Your task to perform on an android device: Open eBay Image 0: 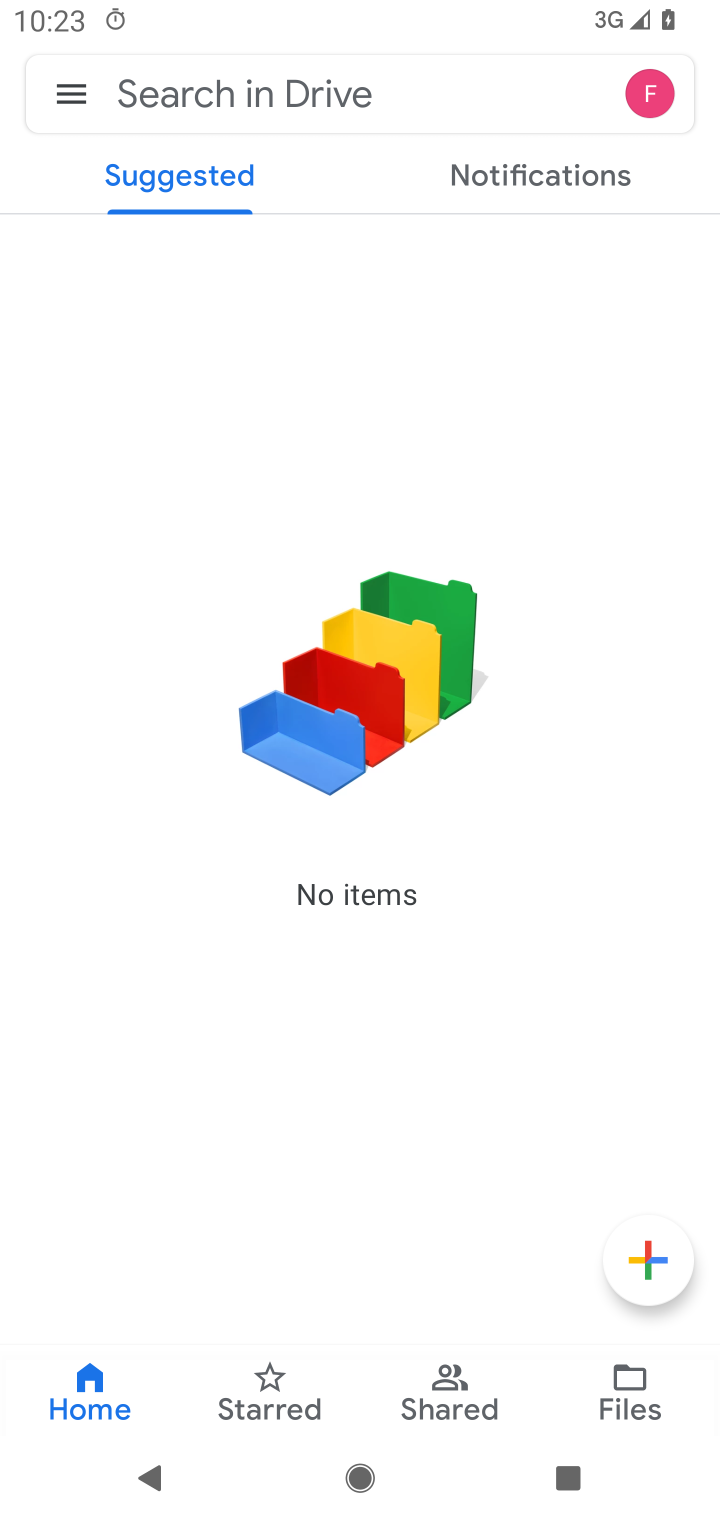
Step 0: press home button
Your task to perform on an android device: Open eBay Image 1: 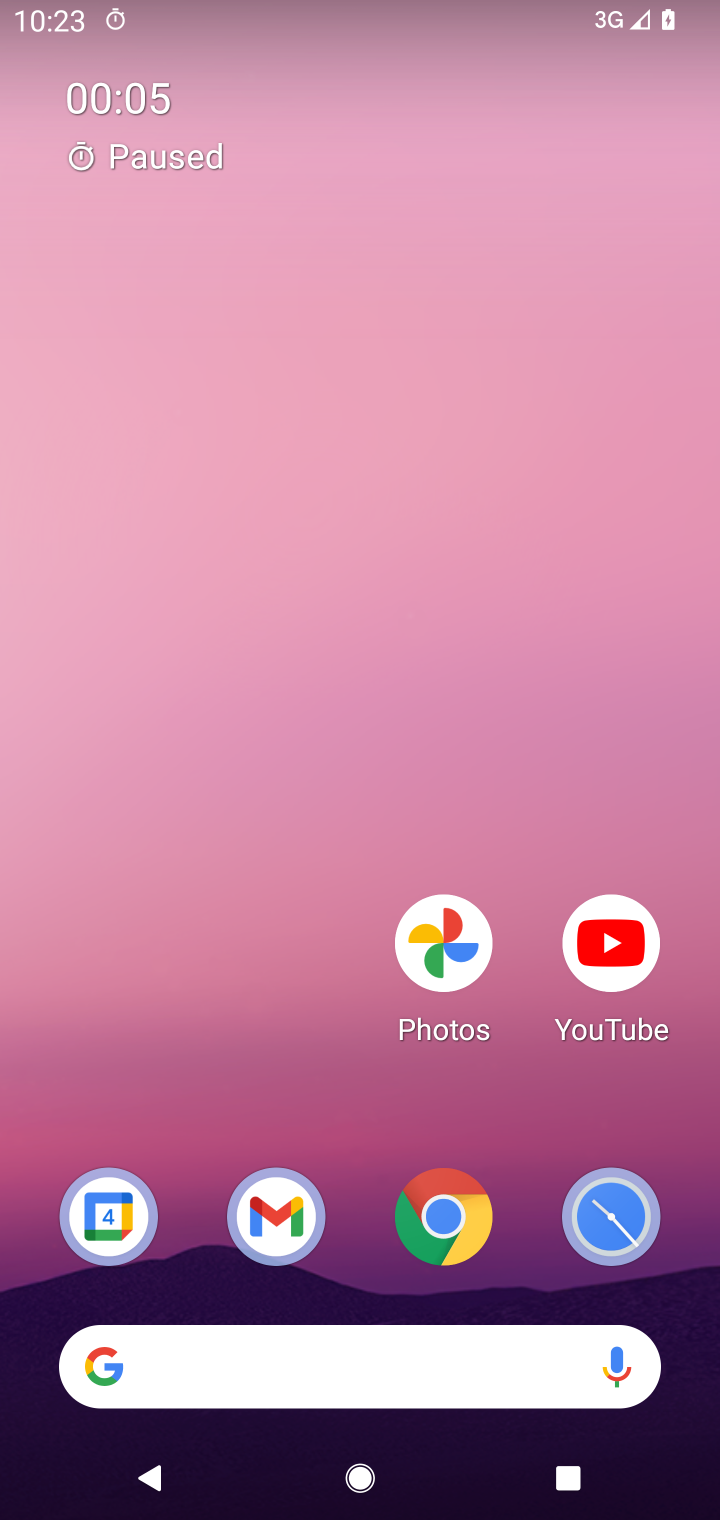
Step 1: click (439, 1221)
Your task to perform on an android device: Open eBay Image 2: 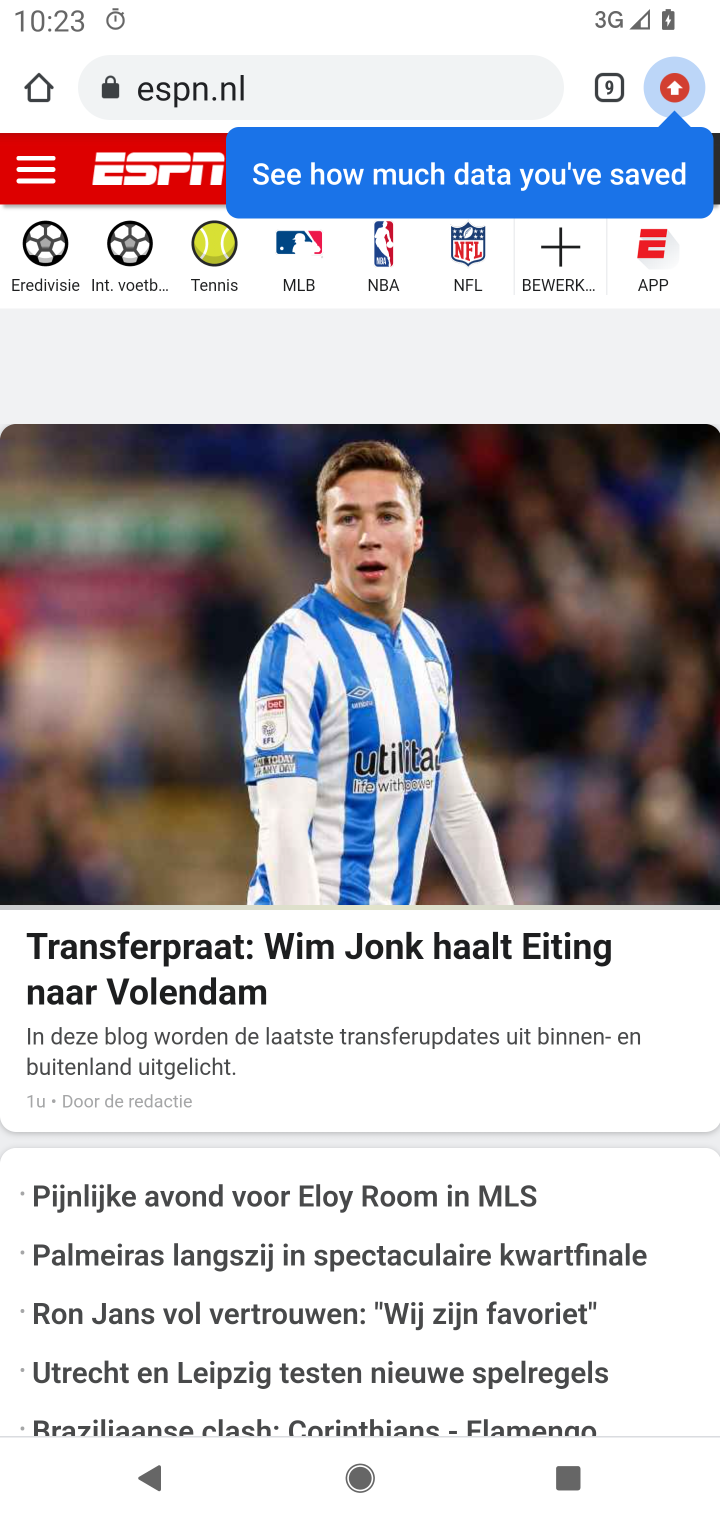
Step 2: drag from (672, 85) to (586, 294)
Your task to perform on an android device: Open eBay Image 3: 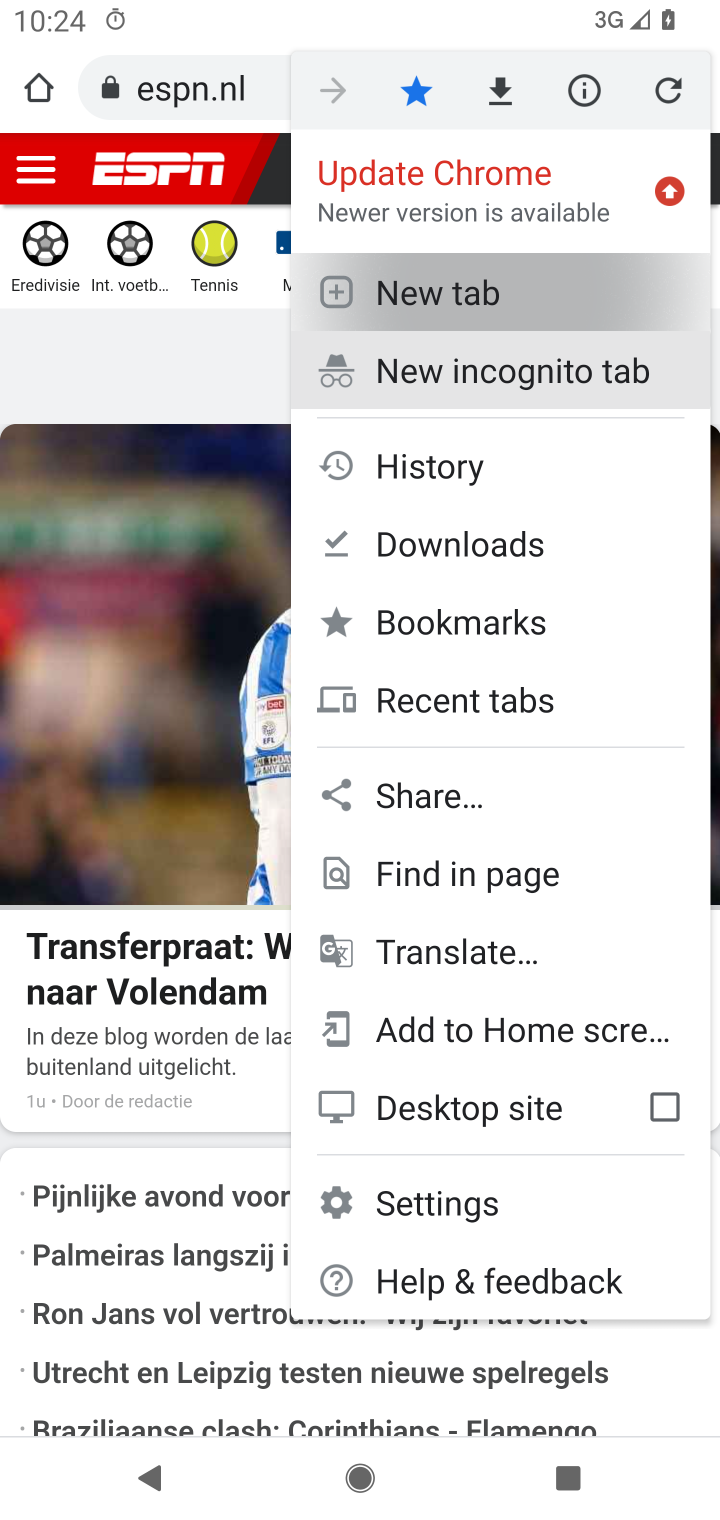
Step 3: click (586, 294)
Your task to perform on an android device: Open eBay Image 4: 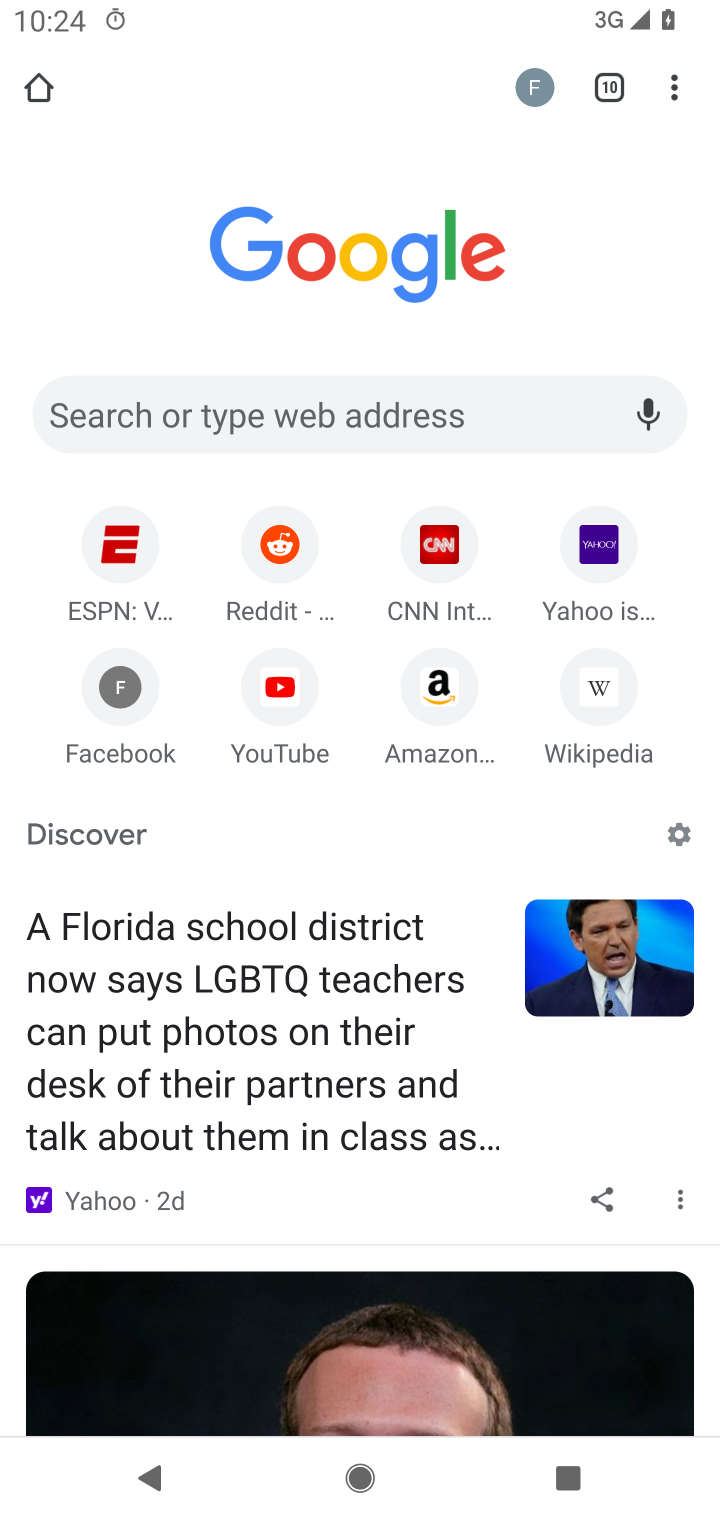
Step 4: click (368, 410)
Your task to perform on an android device: Open eBay Image 5: 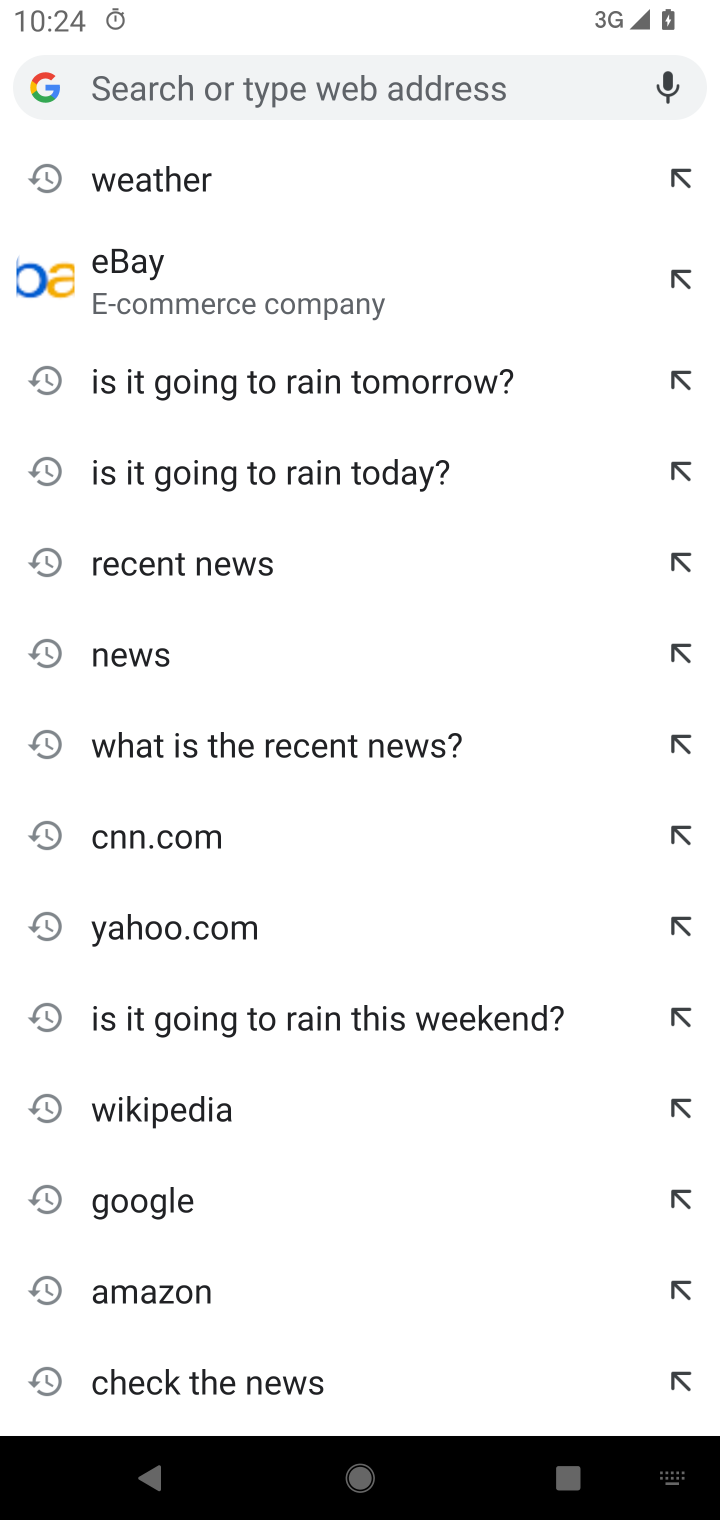
Step 5: click (134, 278)
Your task to perform on an android device: Open eBay Image 6: 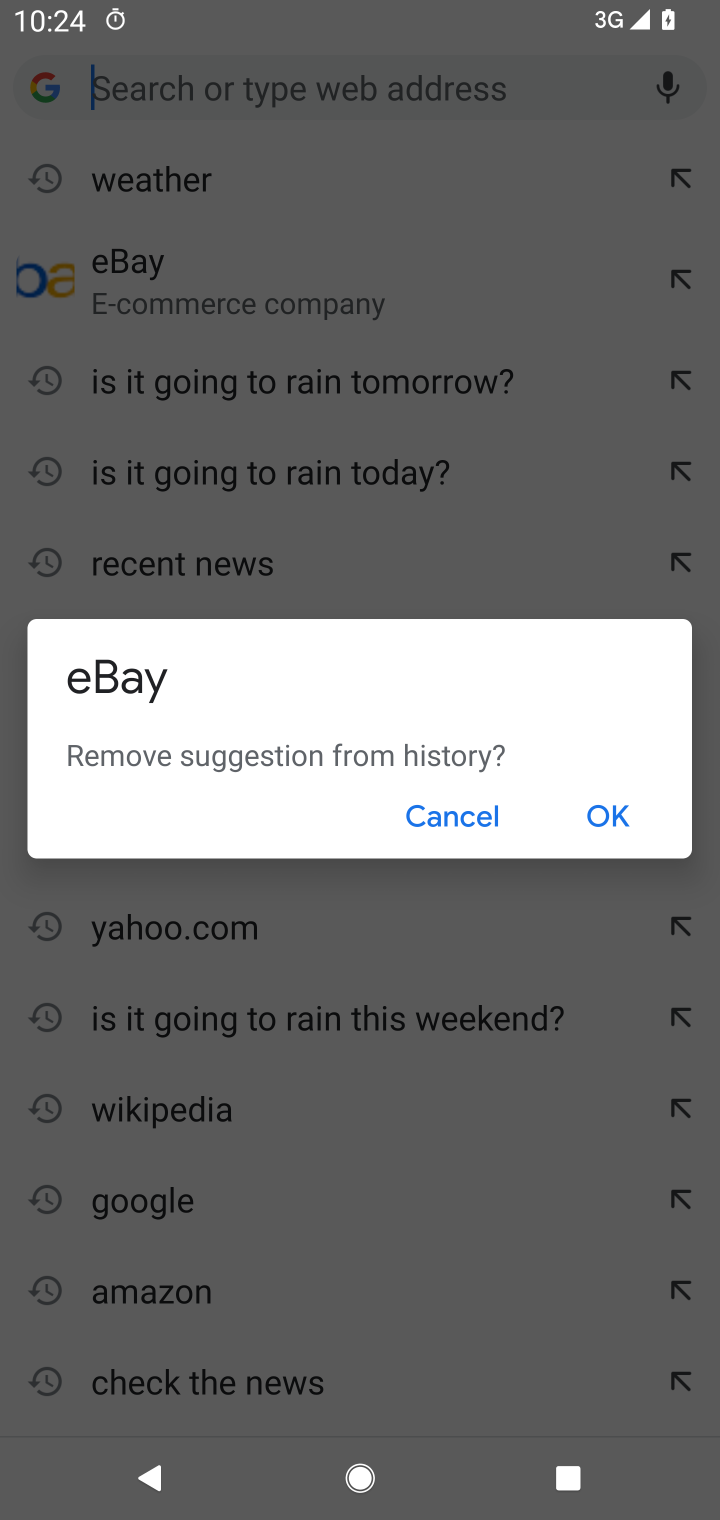
Step 6: click (618, 816)
Your task to perform on an android device: Open eBay Image 7: 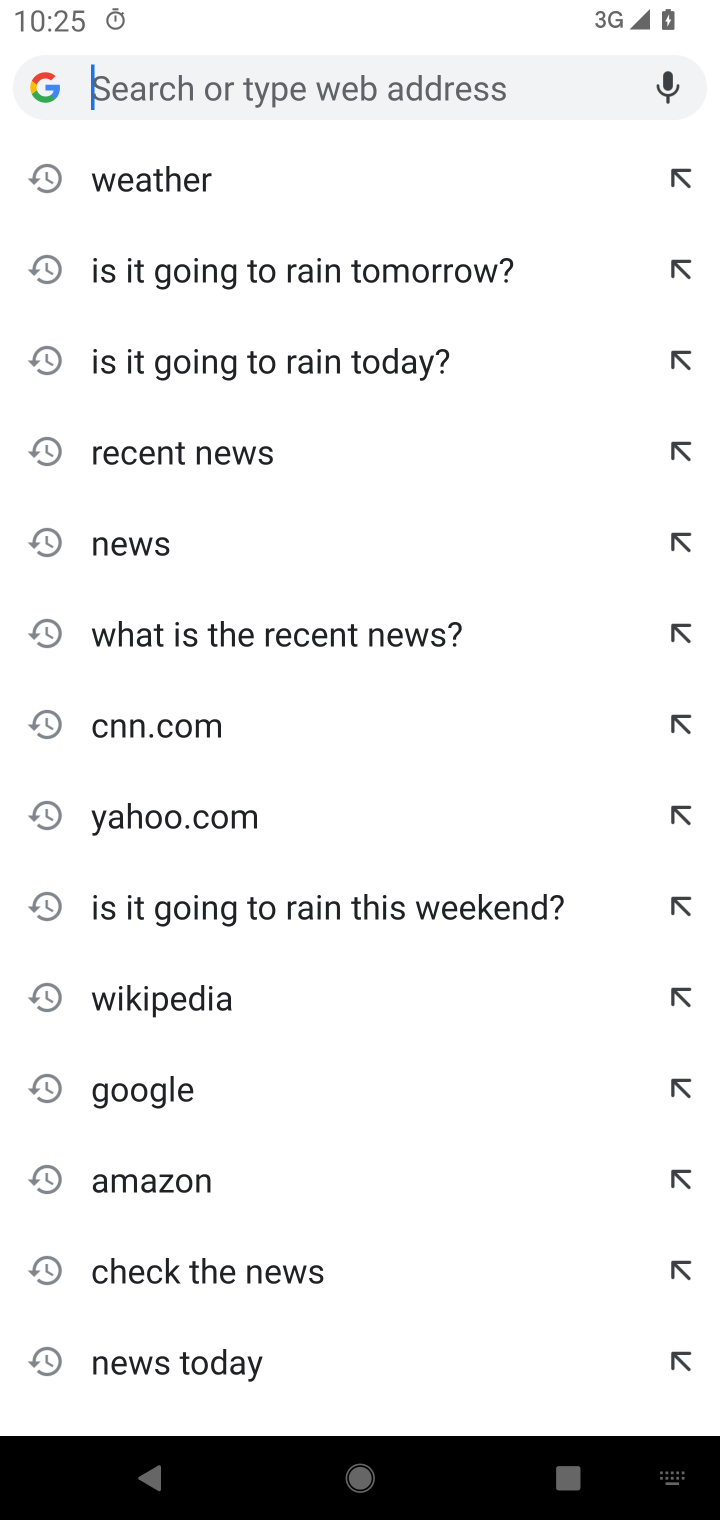
Step 7: type "eBay"
Your task to perform on an android device: Open eBay Image 8: 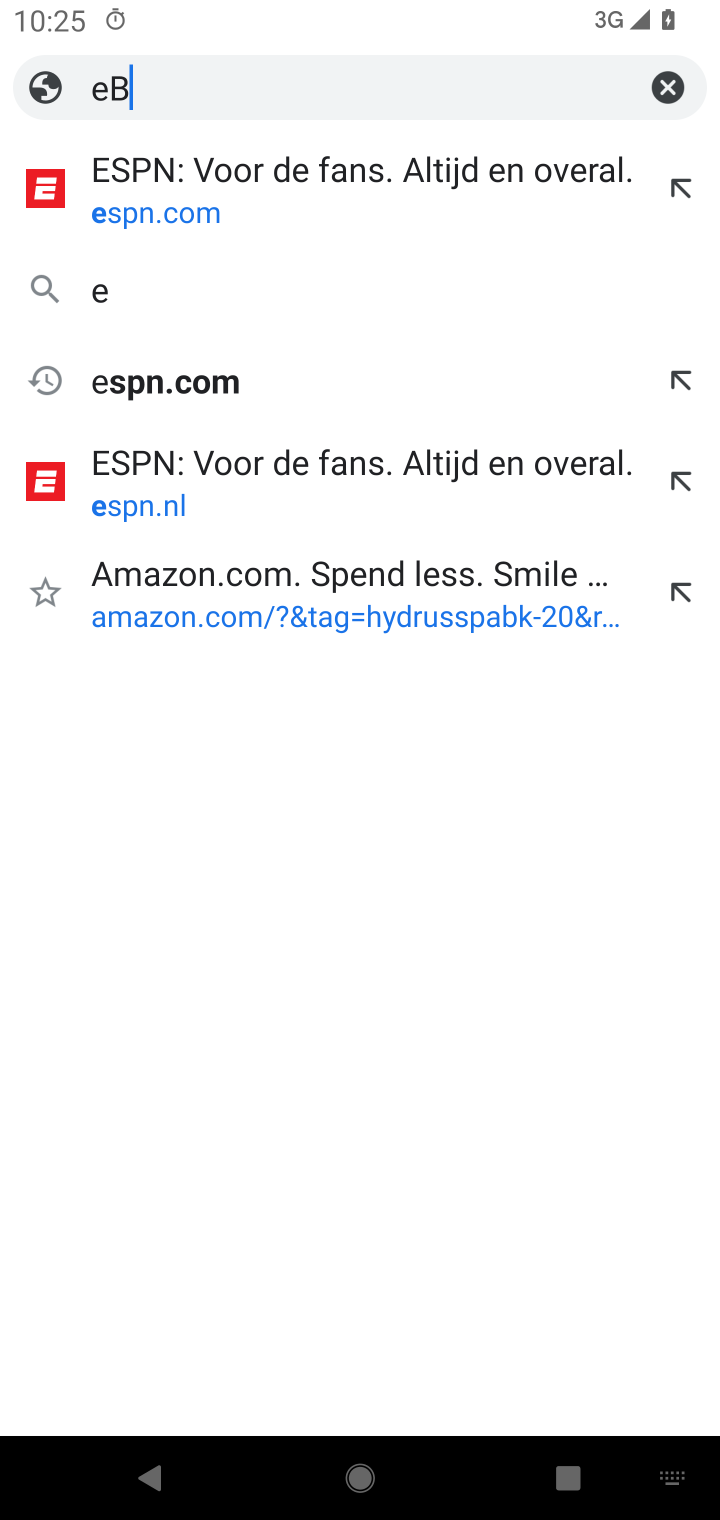
Step 8: type ""
Your task to perform on an android device: Open eBay Image 9: 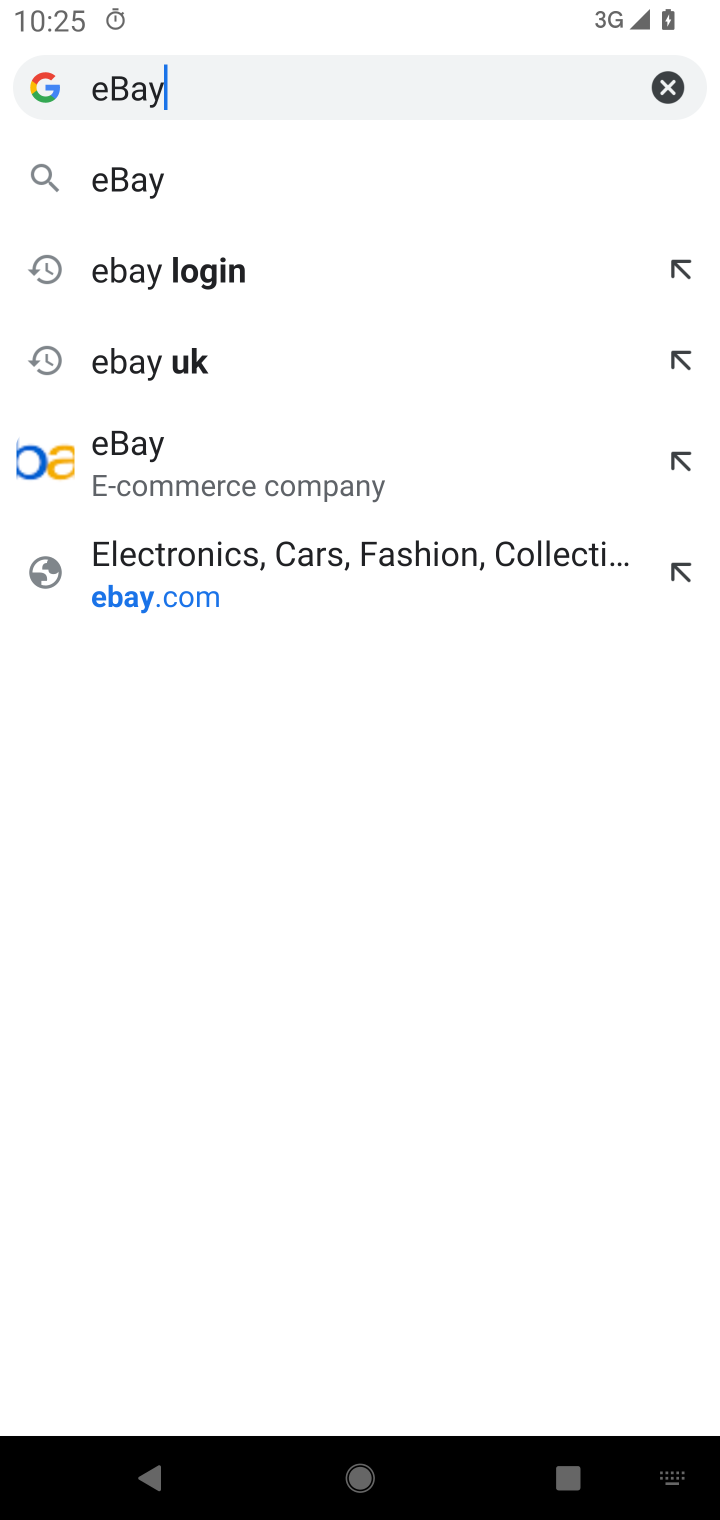
Step 9: click (127, 178)
Your task to perform on an android device: Open eBay Image 10: 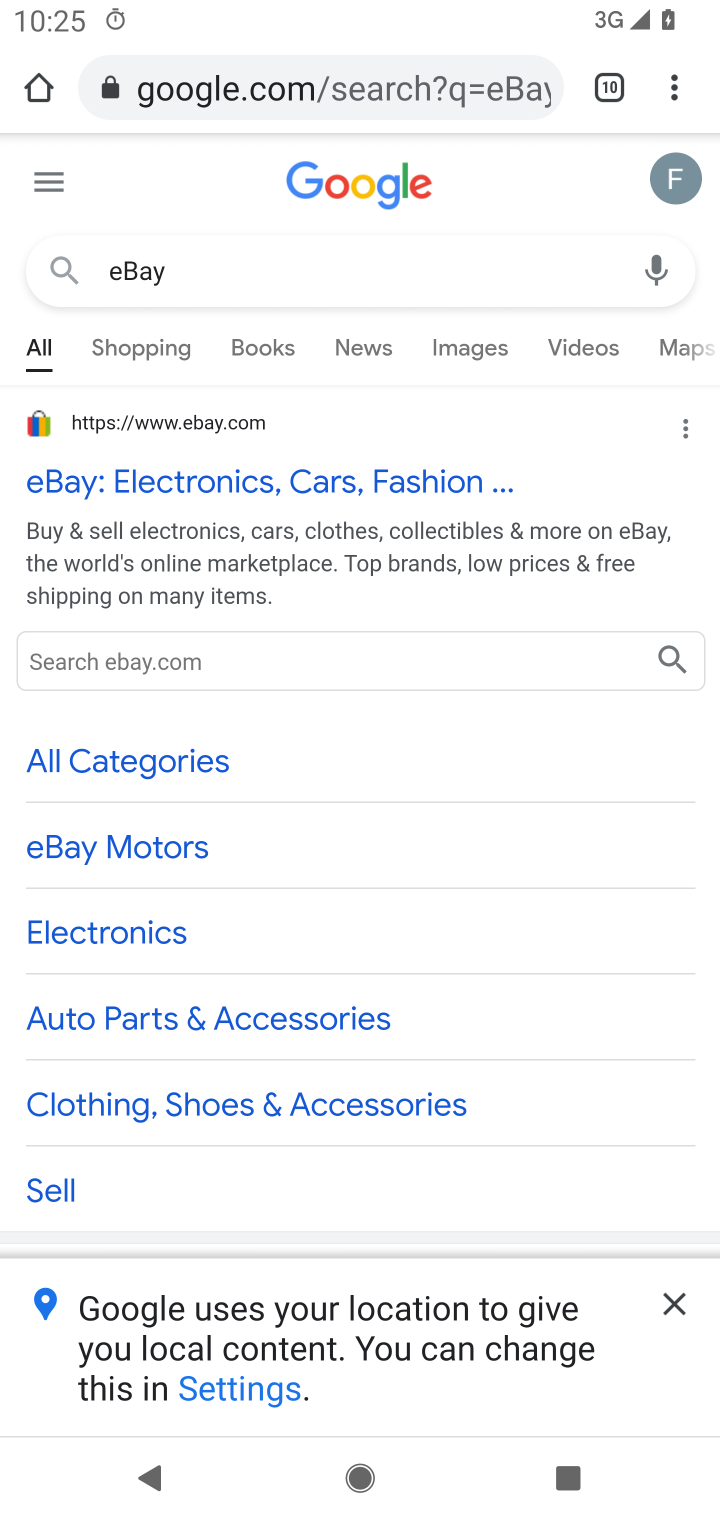
Step 10: click (182, 476)
Your task to perform on an android device: Open eBay Image 11: 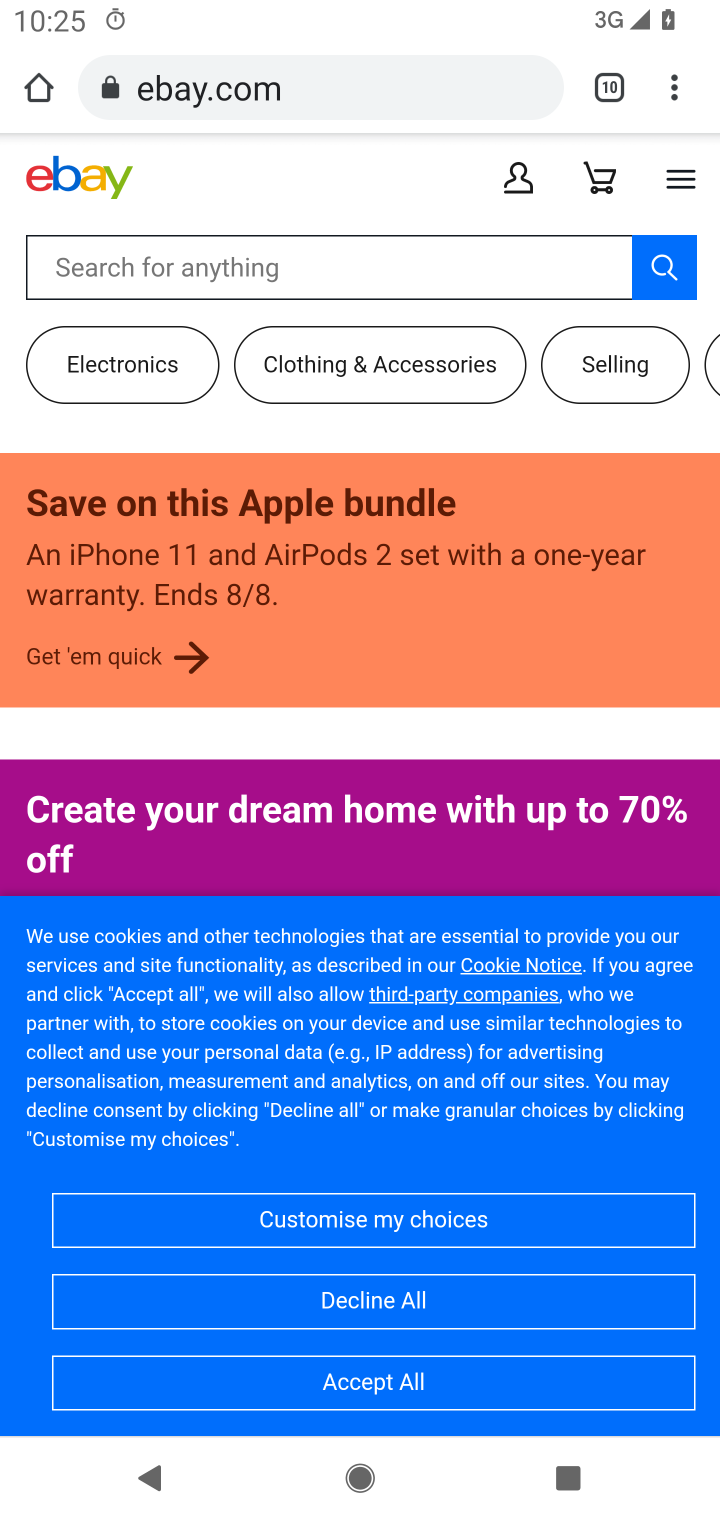
Step 11: task complete